Your task to perform on an android device: open a new tab in the chrome app Image 0: 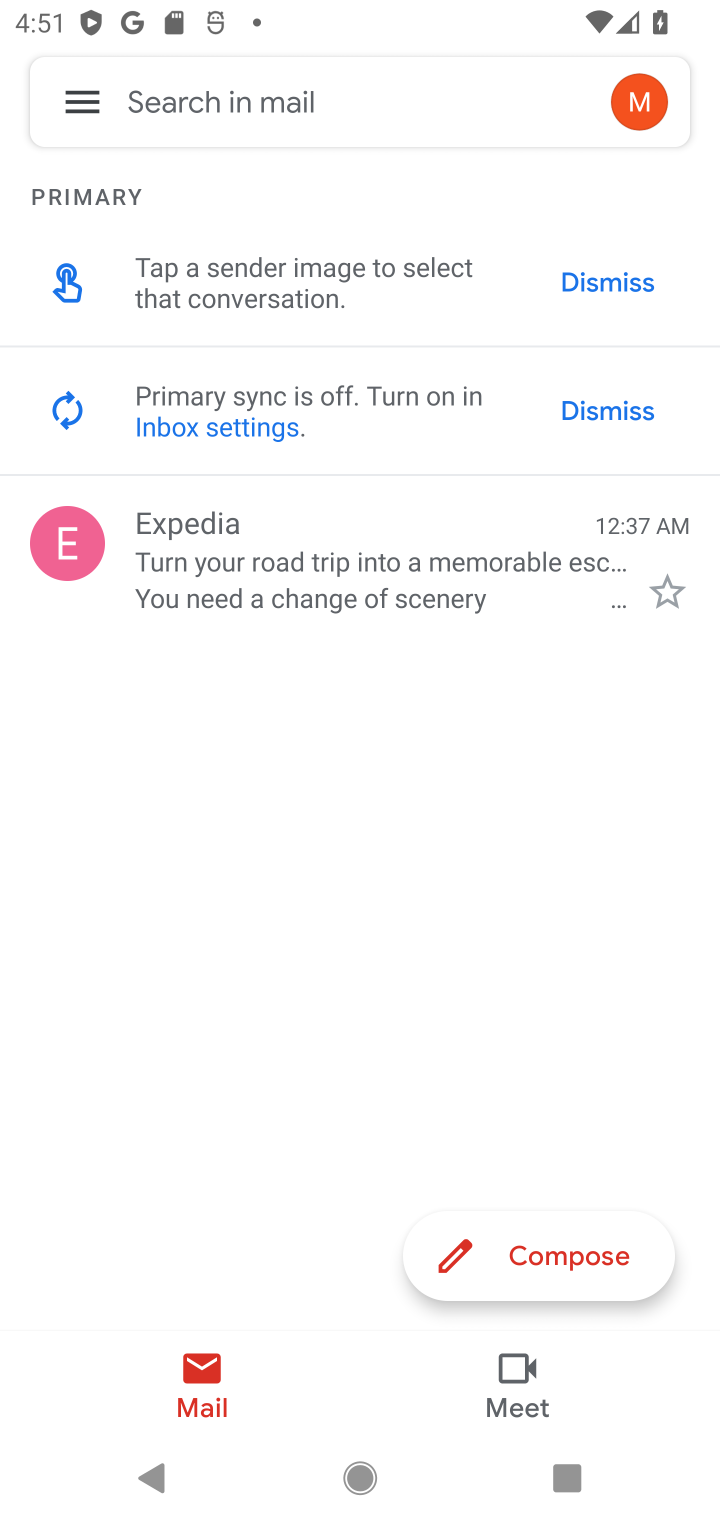
Step 0: click (597, 400)
Your task to perform on an android device: open a new tab in the chrome app Image 1: 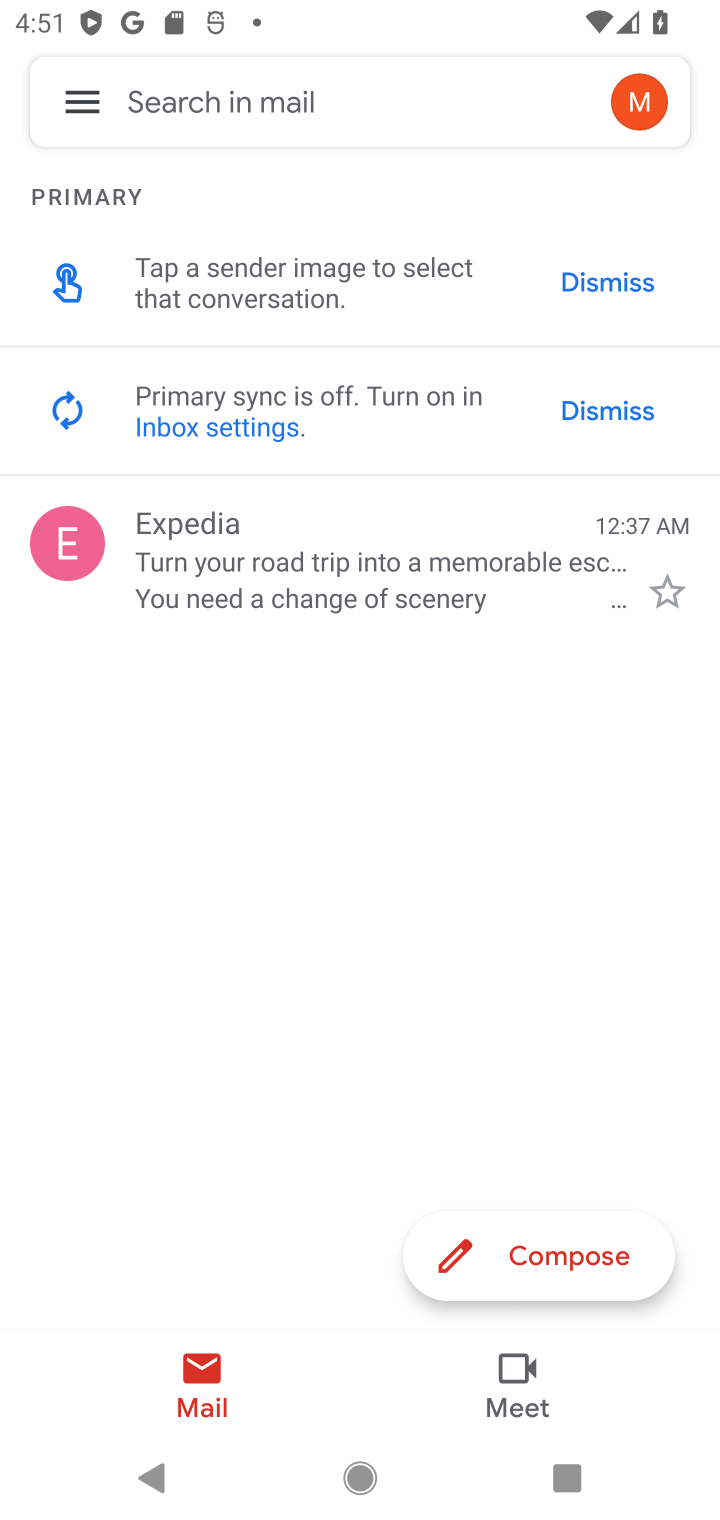
Step 1: click (602, 273)
Your task to perform on an android device: open a new tab in the chrome app Image 2: 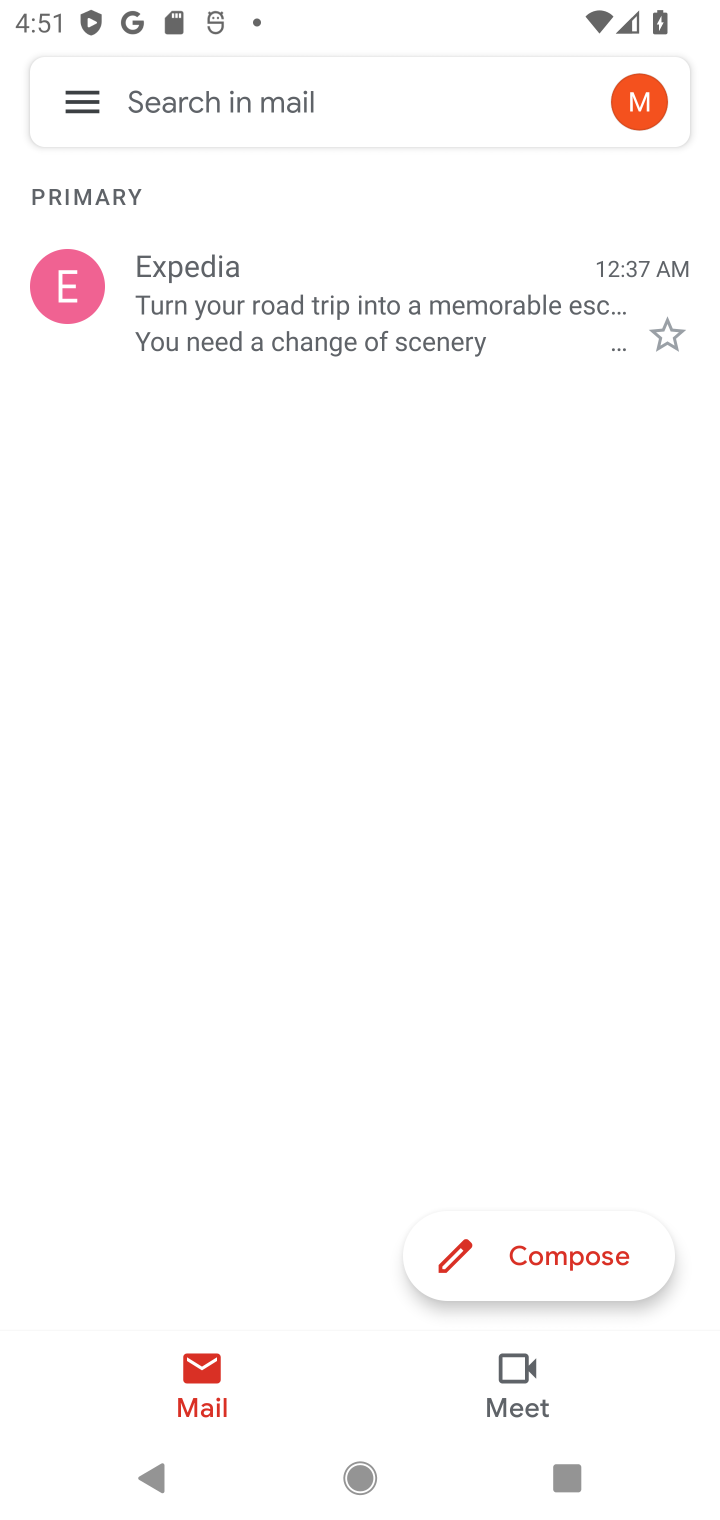
Step 2: press home button
Your task to perform on an android device: open a new tab in the chrome app Image 3: 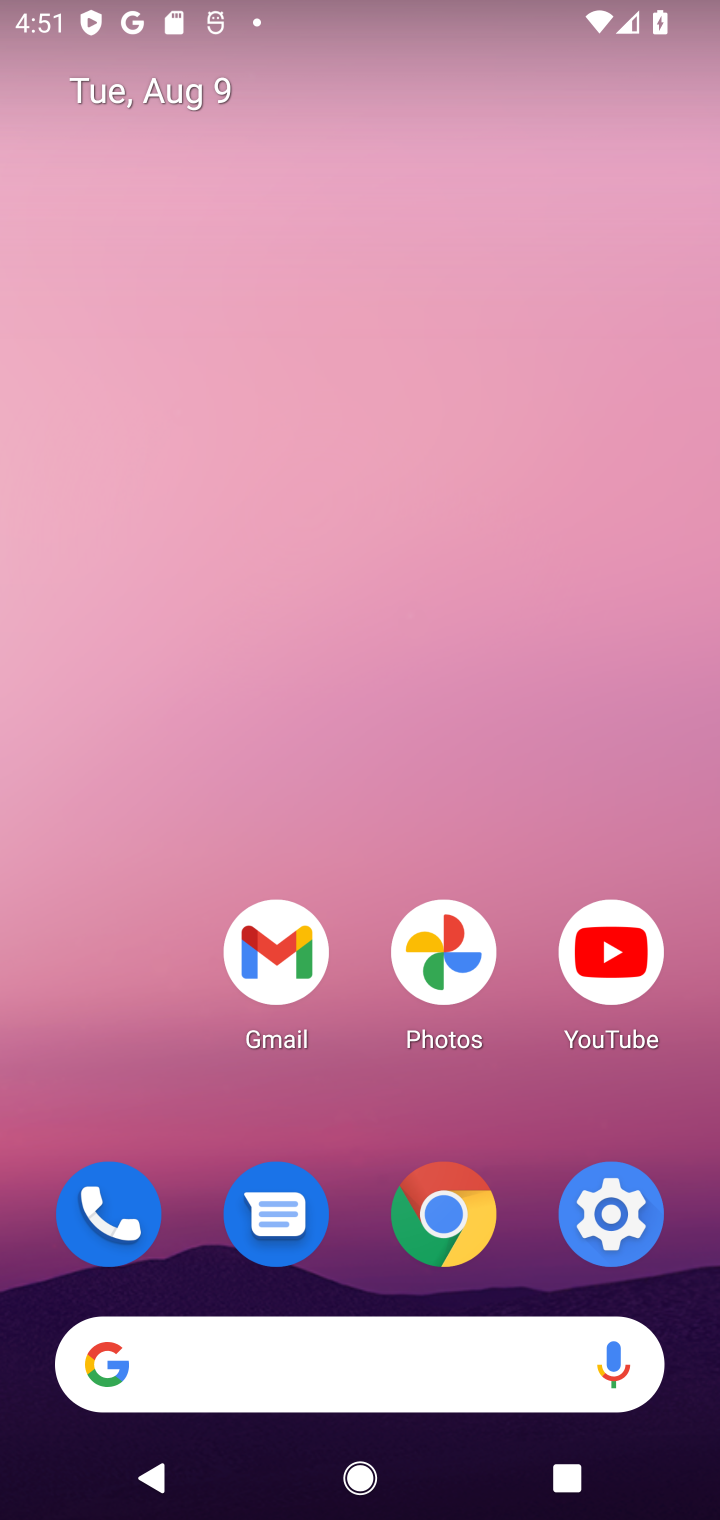
Step 3: drag from (482, 1437) to (278, 408)
Your task to perform on an android device: open a new tab in the chrome app Image 4: 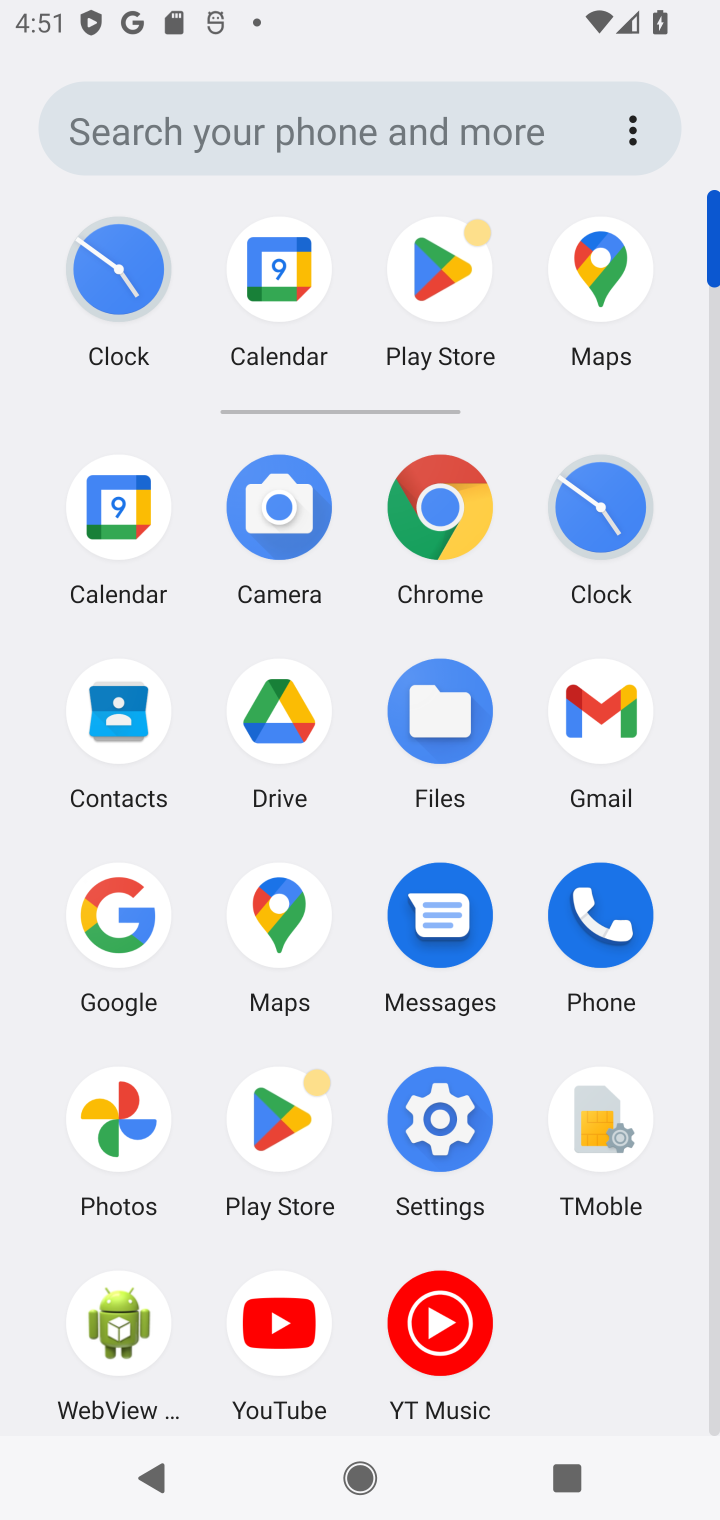
Step 4: click (439, 545)
Your task to perform on an android device: open a new tab in the chrome app Image 5: 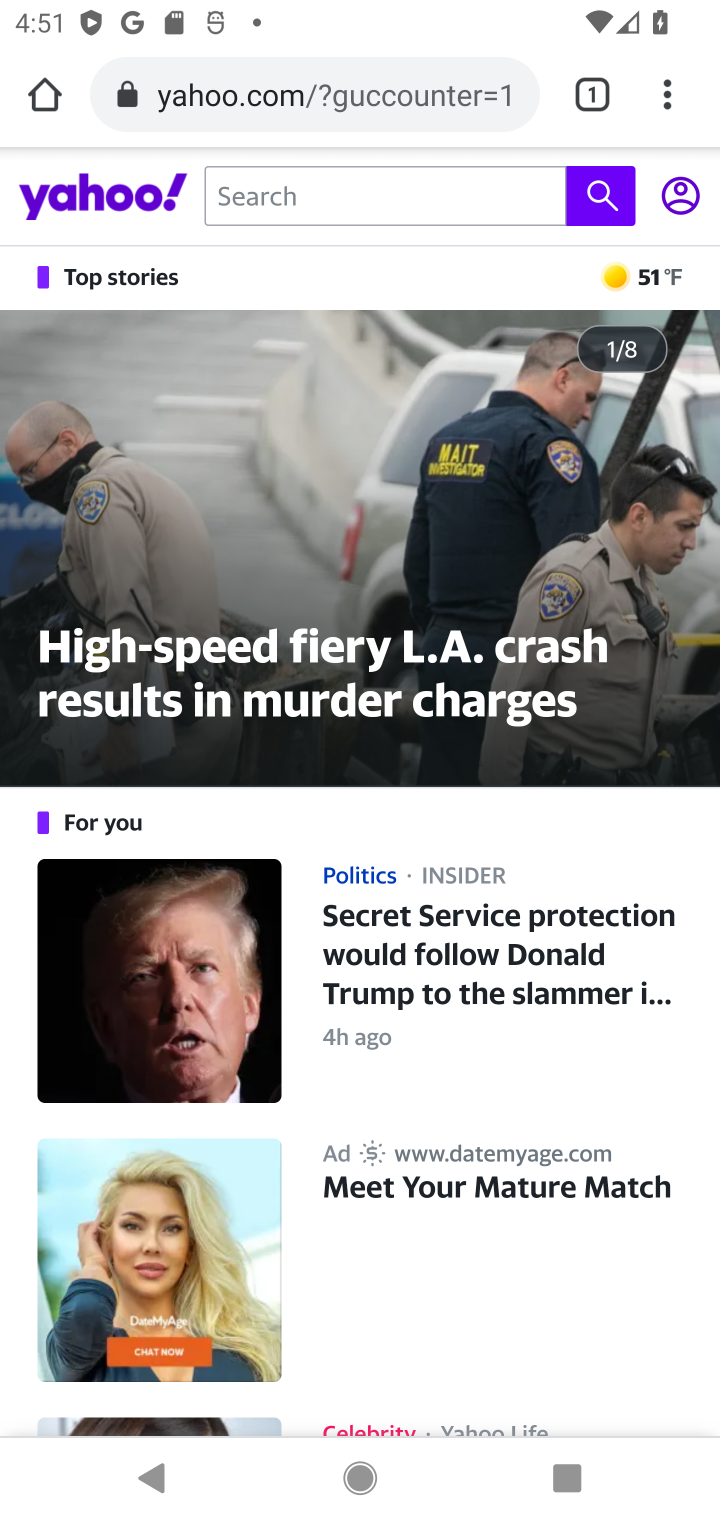
Step 5: click (668, 115)
Your task to perform on an android device: open a new tab in the chrome app Image 6: 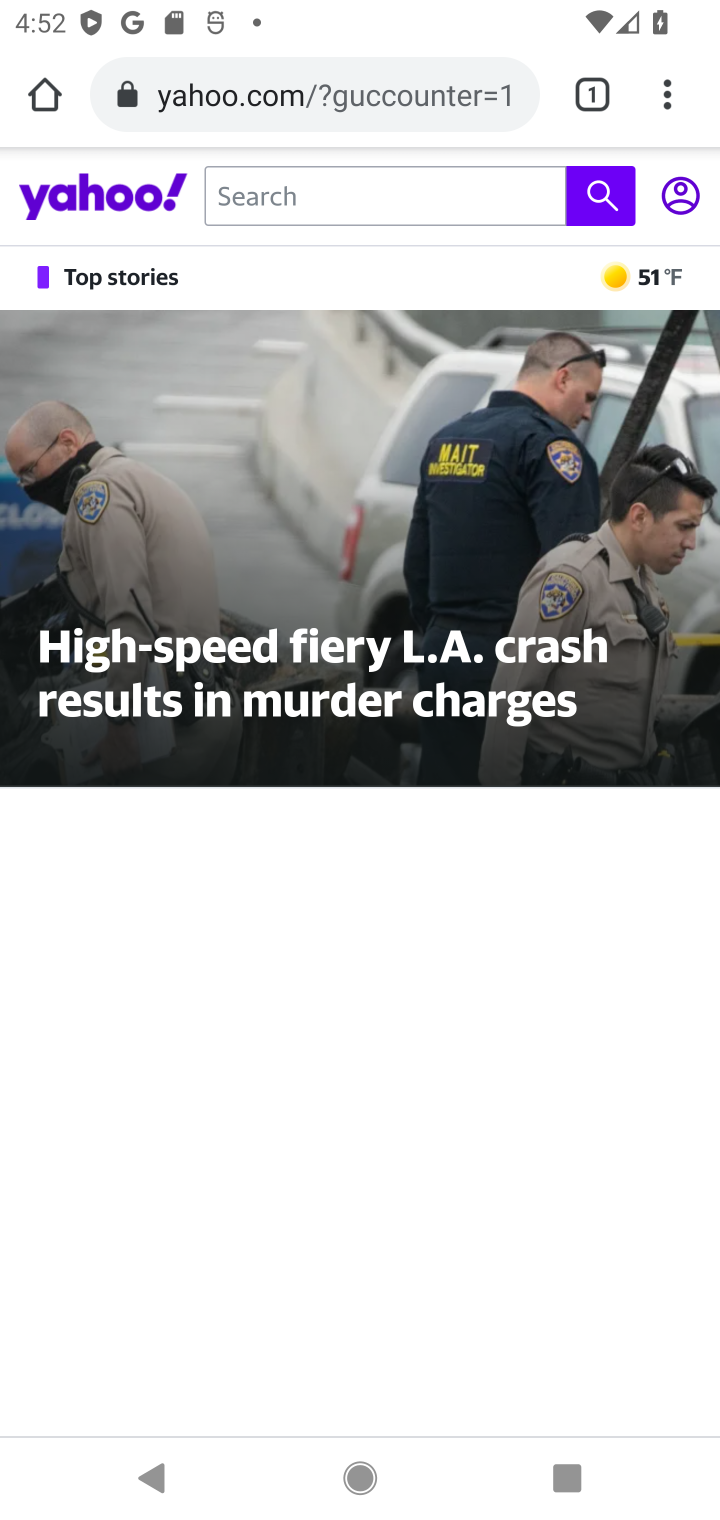
Step 6: click (599, 101)
Your task to perform on an android device: open a new tab in the chrome app Image 7: 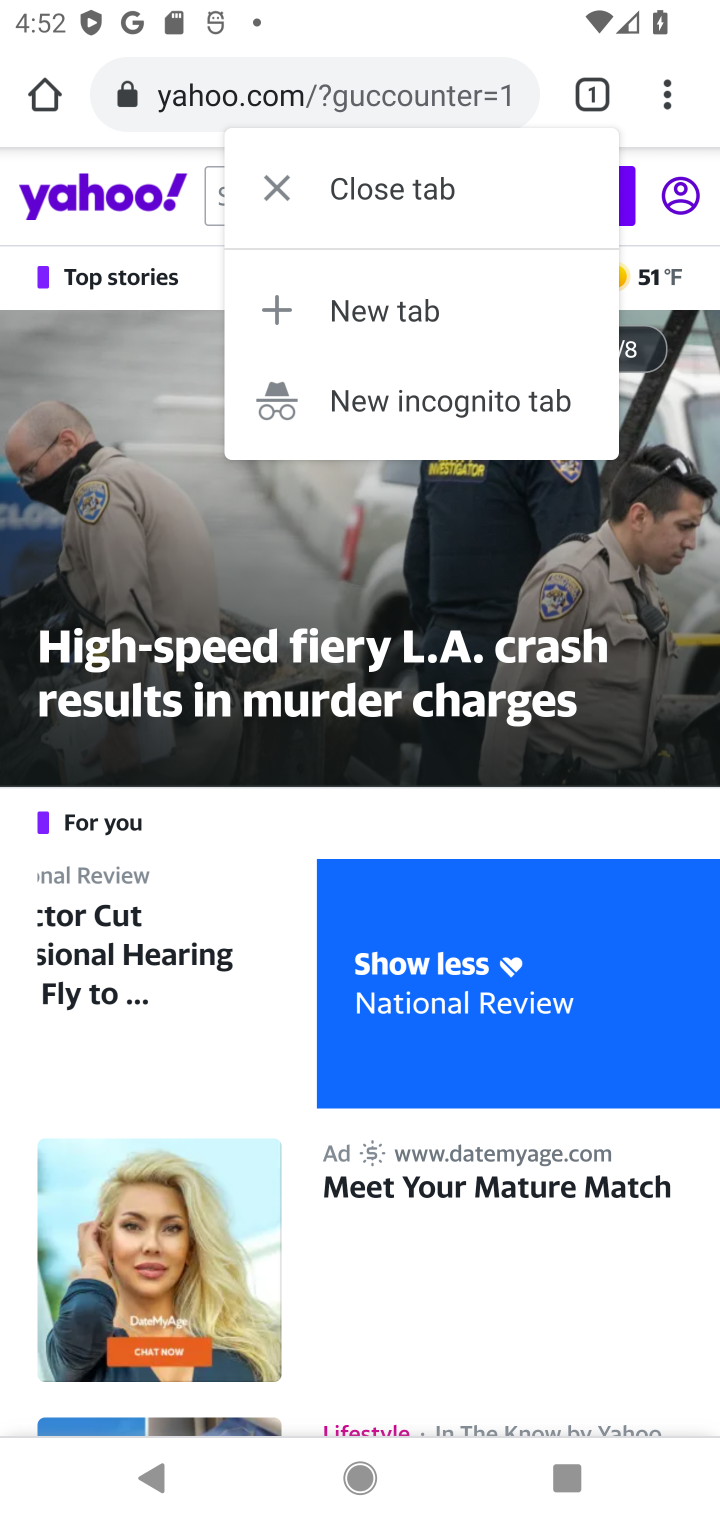
Step 7: click (589, 91)
Your task to perform on an android device: open a new tab in the chrome app Image 8: 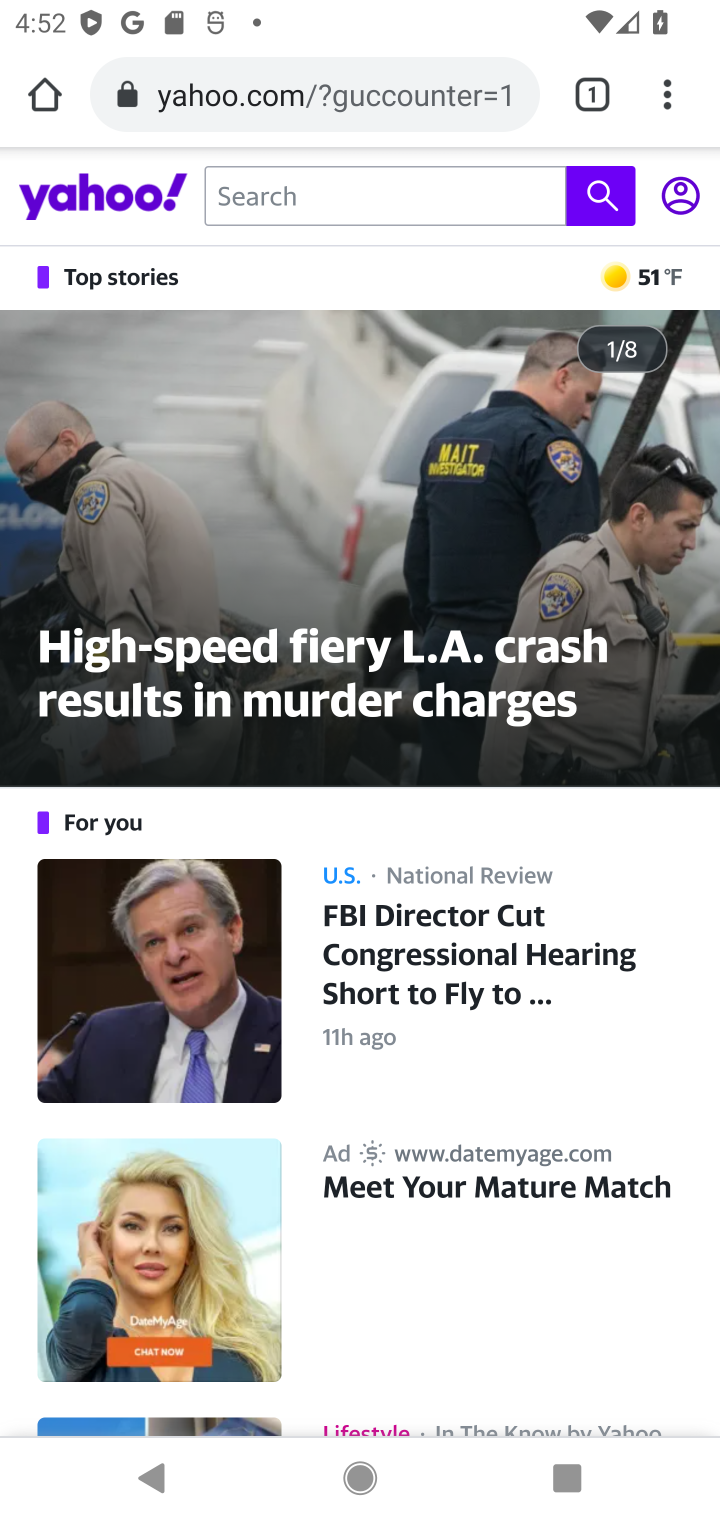
Step 8: click (597, 87)
Your task to perform on an android device: open a new tab in the chrome app Image 9: 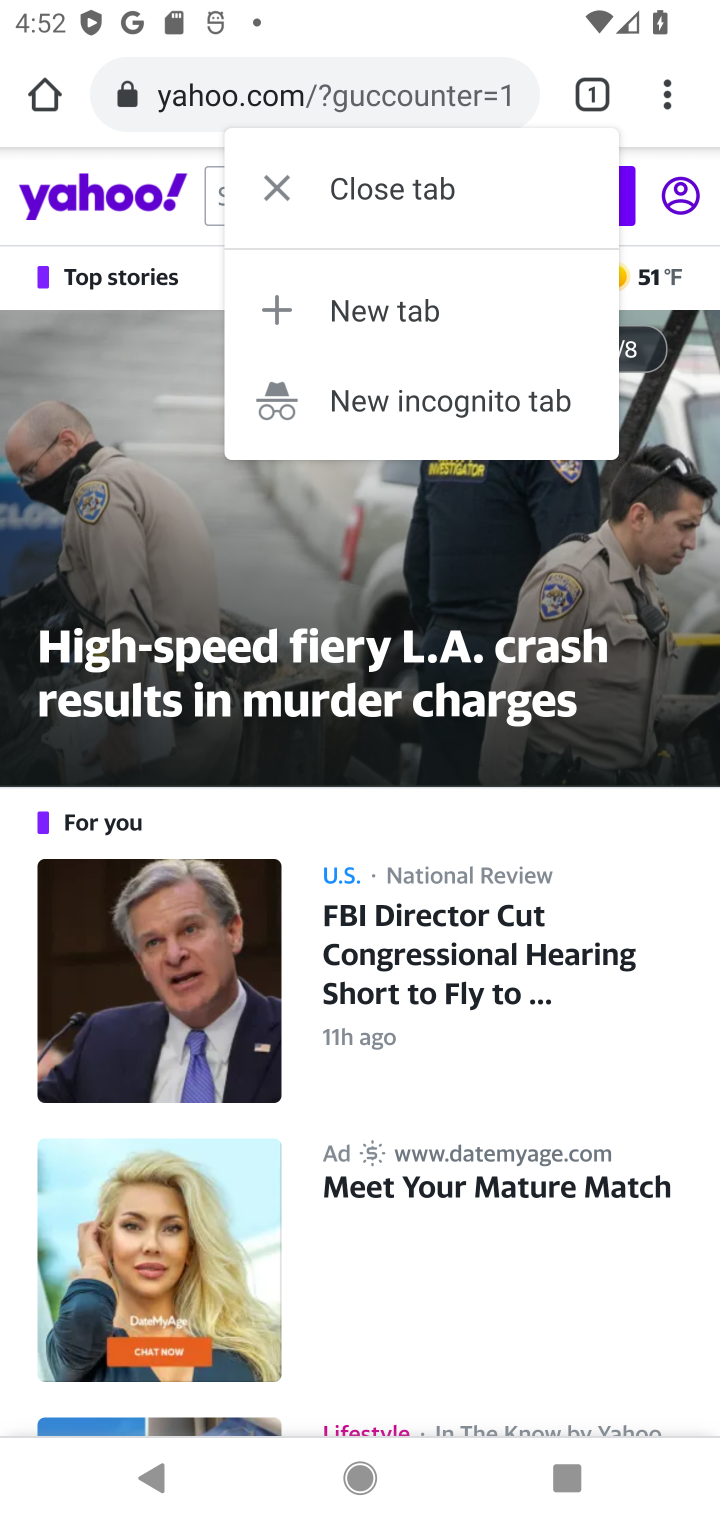
Step 9: click (398, 313)
Your task to perform on an android device: open a new tab in the chrome app Image 10: 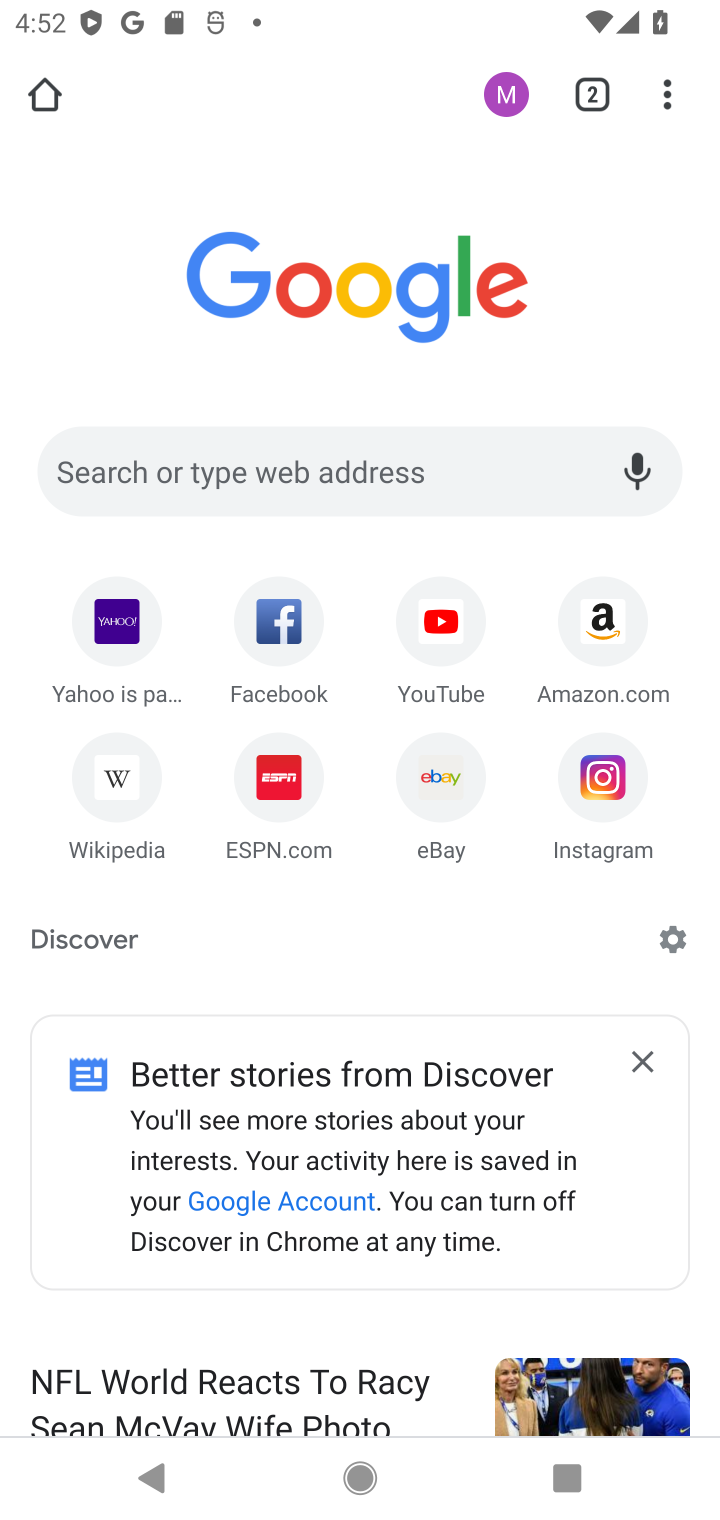
Step 10: task complete